Your task to perform on an android device: Open Youtube and go to "Your channel" Image 0: 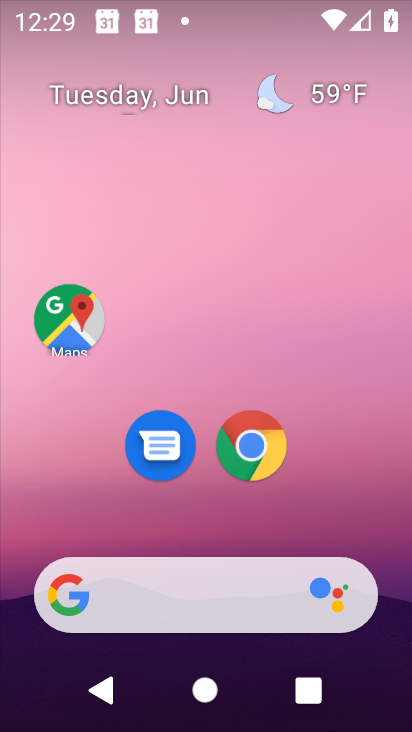
Step 0: click (51, 306)
Your task to perform on an android device: Open Youtube and go to "Your channel" Image 1: 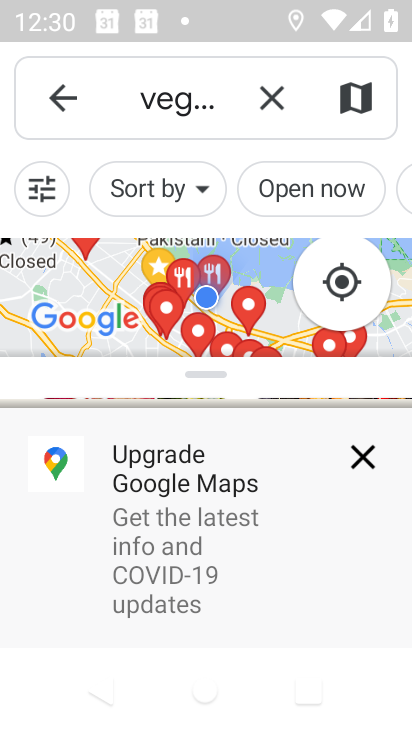
Step 1: press home button
Your task to perform on an android device: Open Youtube and go to "Your channel" Image 2: 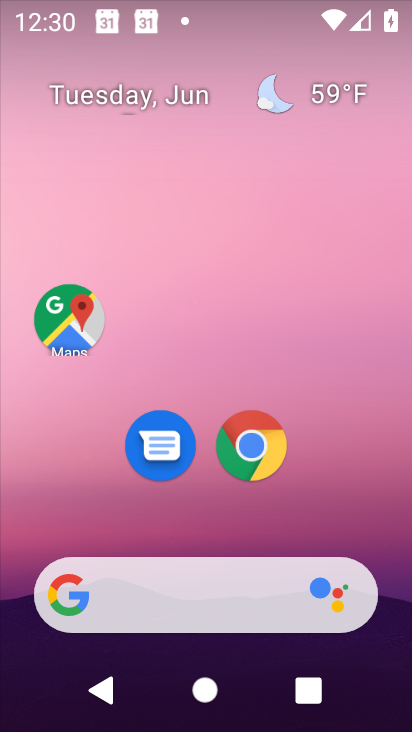
Step 2: drag from (168, 541) to (111, 88)
Your task to perform on an android device: Open Youtube and go to "Your channel" Image 3: 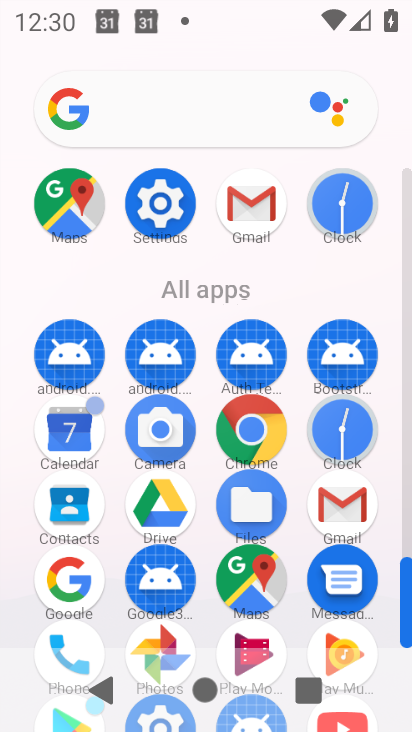
Step 3: drag from (205, 607) to (245, 240)
Your task to perform on an android device: Open Youtube and go to "Your channel" Image 4: 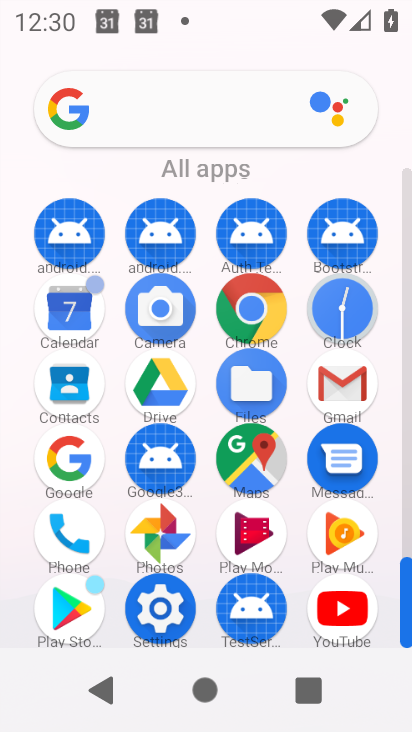
Step 4: click (359, 611)
Your task to perform on an android device: Open Youtube and go to "Your channel" Image 5: 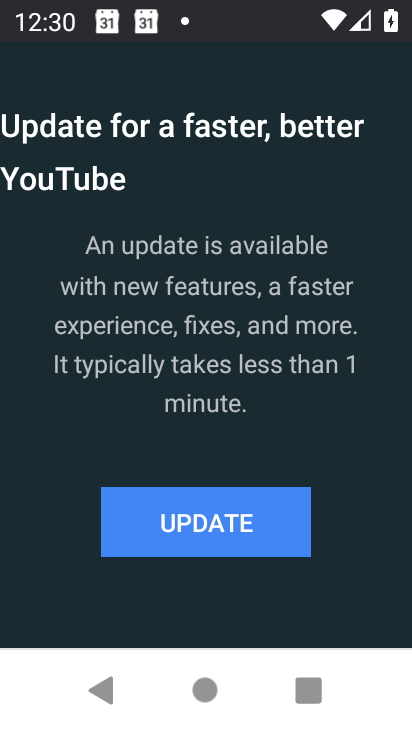
Step 5: click (268, 546)
Your task to perform on an android device: Open Youtube and go to "Your channel" Image 6: 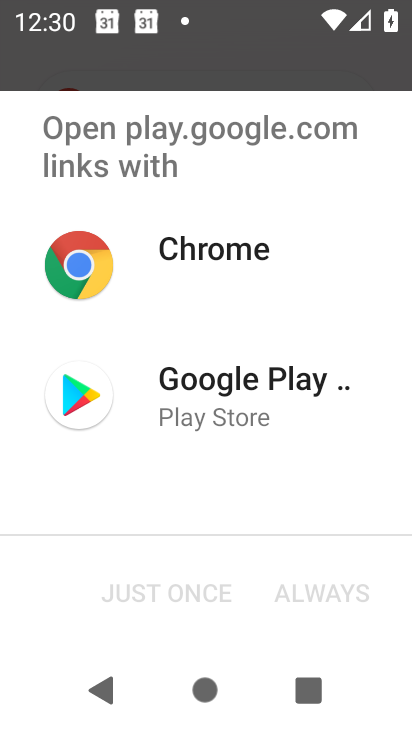
Step 6: click (148, 418)
Your task to perform on an android device: Open Youtube and go to "Your channel" Image 7: 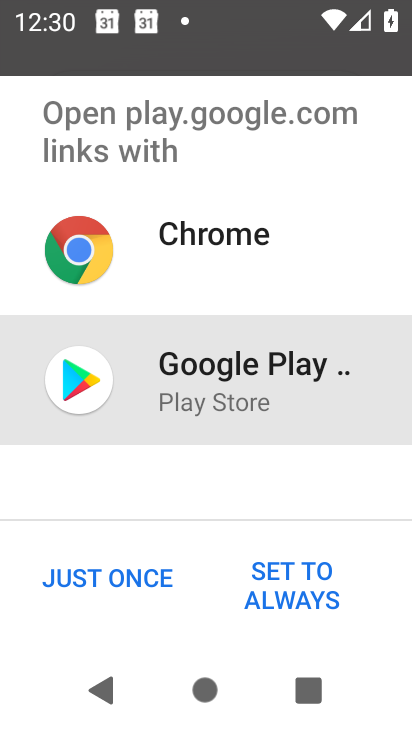
Step 7: click (172, 586)
Your task to perform on an android device: Open Youtube and go to "Your channel" Image 8: 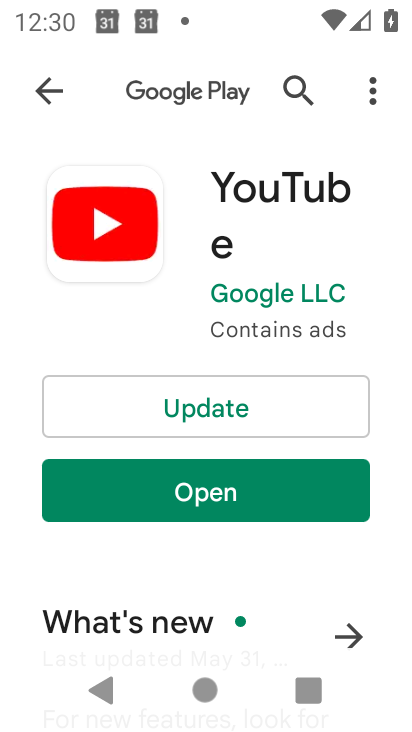
Step 8: click (234, 415)
Your task to perform on an android device: Open Youtube and go to "Your channel" Image 9: 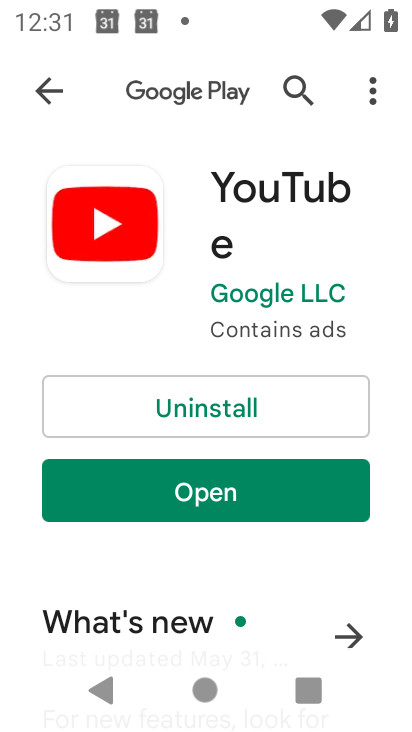
Step 9: click (179, 505)
Your task to perform on an android device: Open Youtube and go to "Your channel" Image 10: 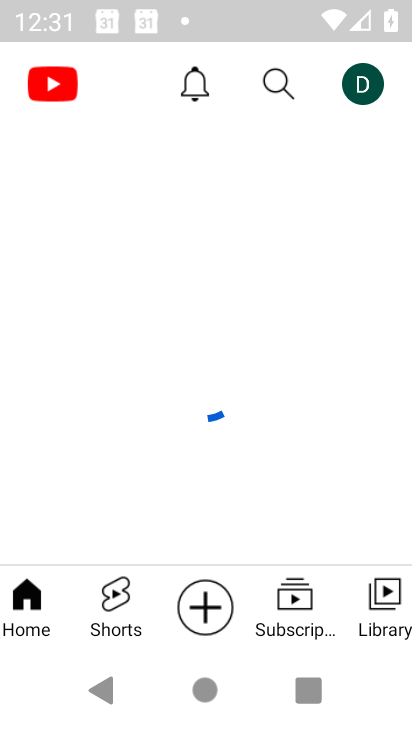
Step 10: click (293, 87)
Your task to perform on an android device: Open Youtube and go to "Your channel" Image 11: 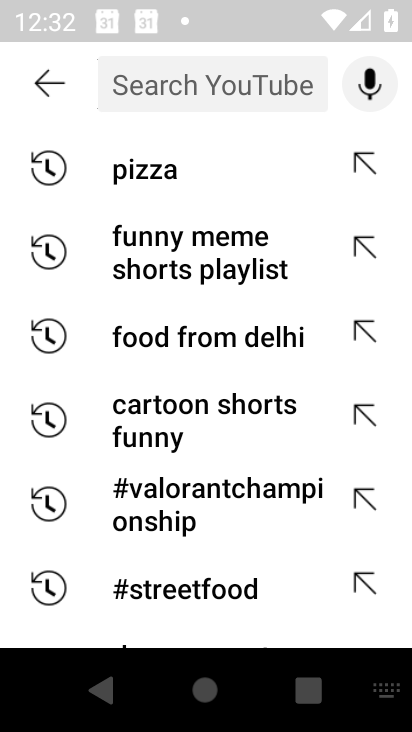
Step 11: type "your channel"
Your task to perform on an android device: Open Youtube and go to "Your channel" Image 12: 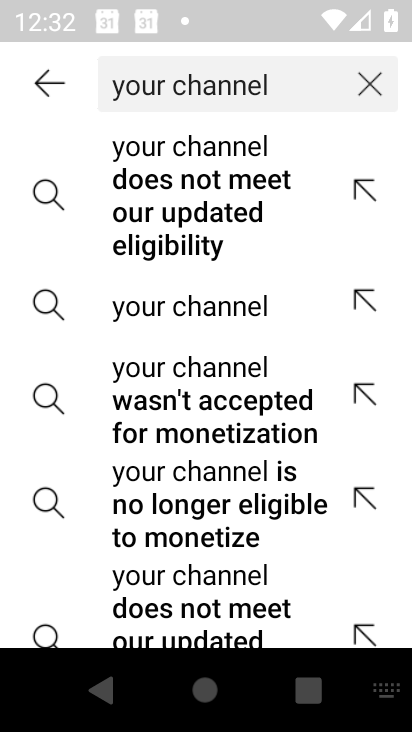
Step 12: click (181, 328)
Your task to perform on an android device: Open Youtube and go to "Your channel" Image 13: 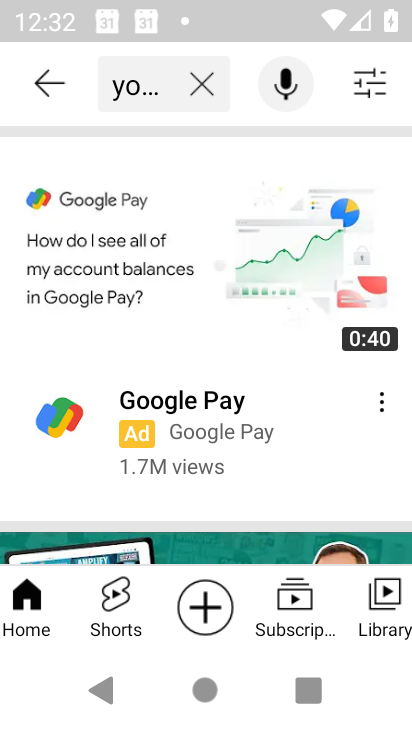
Step 13: task complete